Your task to perform on an android device: What is the news today? Image 0: 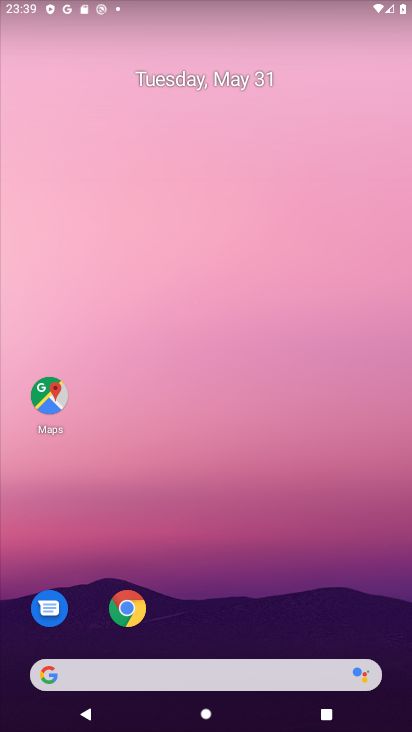
Step 0: press home button
Your task to perform on an android device: What is the news today? Image 1: 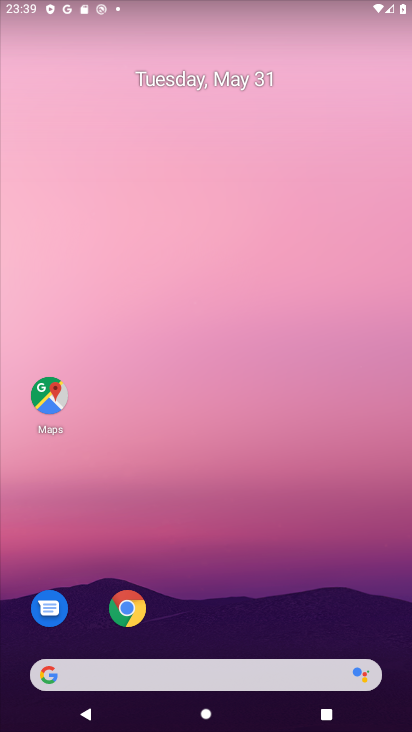
Step 1: click (121, 616)
Your task to perform on an android device: What is the news today? Image 2: 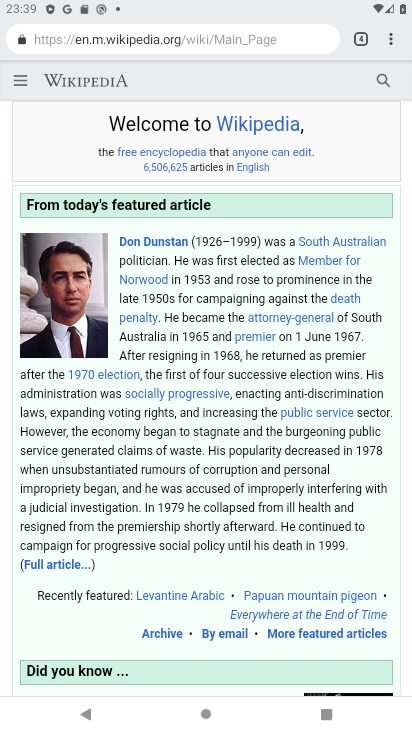
Step 2: click (235, 35)
Your task to perform on an android device: What is the news today? Image 3: 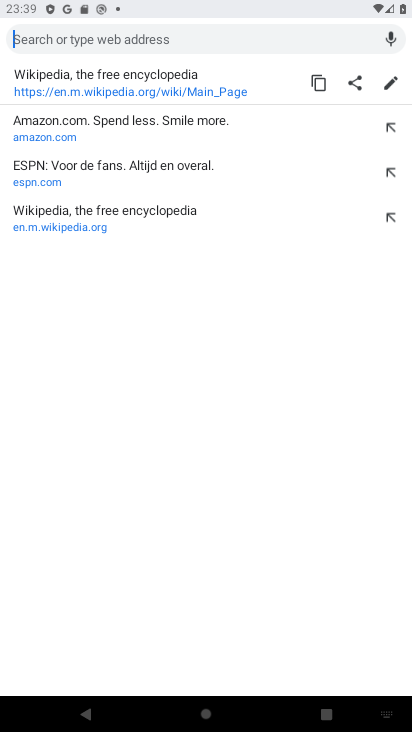
Step 3: type "What is the news today?"
Your task to perform on an android device: What is the news today? Image 4: 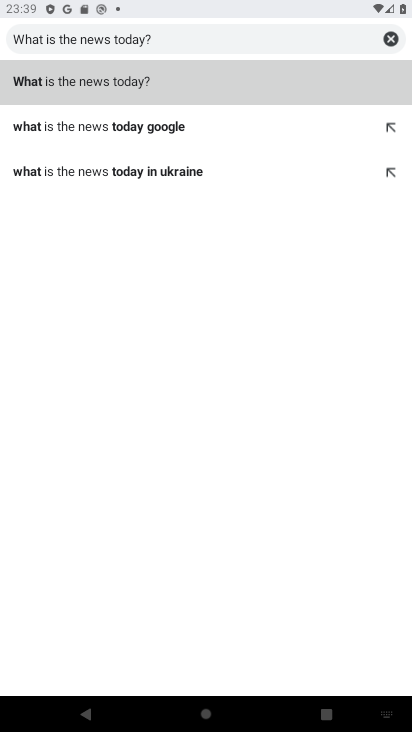
Step 4: click (94, 82)
Your task to perform on an android device: What is the news today? Image 5: 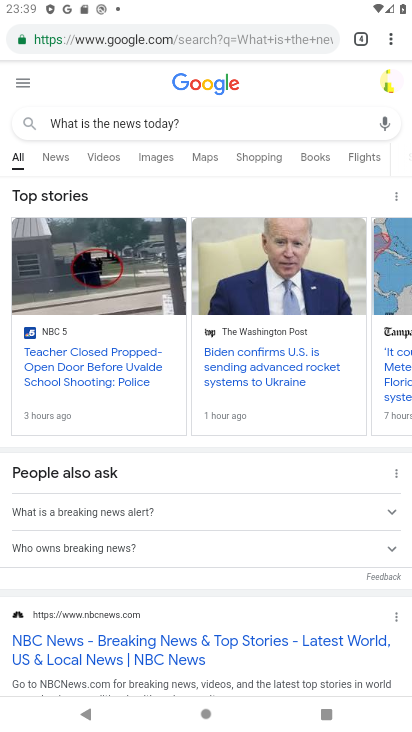
Step 5: task complete